Your task to perform on an android device: check google app version Image 0: 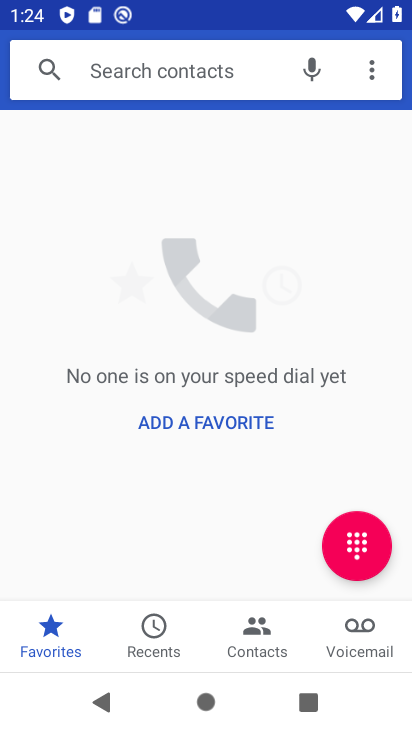
Step 0: press home button
Your task to perform on an android device: check google app version Image 1: 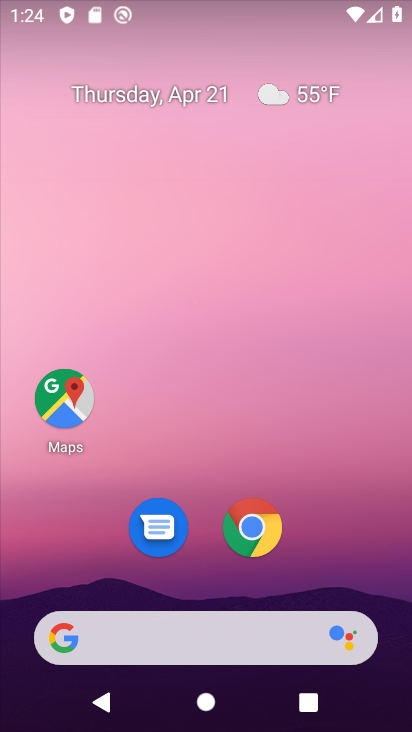
Step 1: drag from (364, 529) to (378, 39)
Your task to perform on an android device: check google app version Image 2: 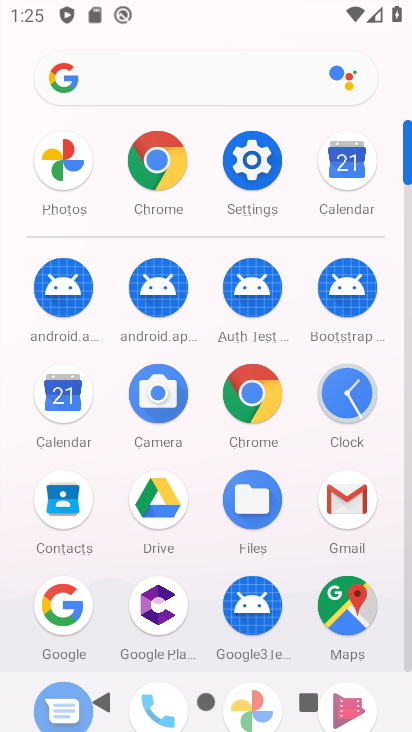
Step 2: drag from (195, 629) to (215, 195)
Your task to perform on an android device: check google app version Image 3: 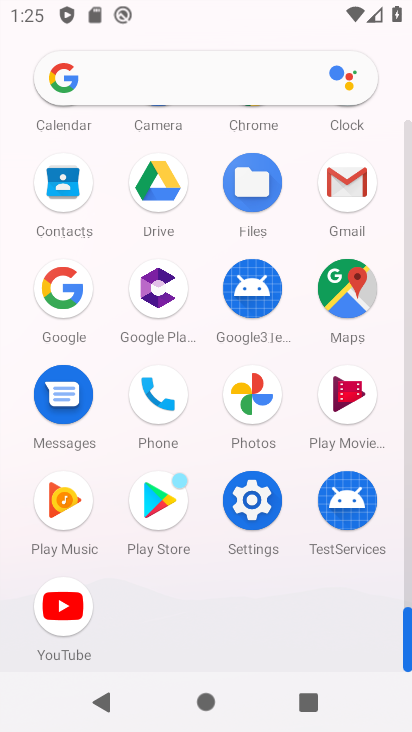
Step 3: click (70, 292)
Your task to perform on an android device: check google app version Image 4: 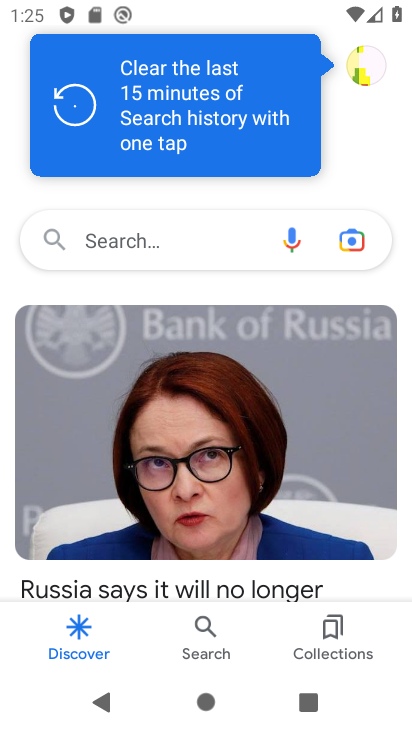
Step 4: click (364, 68)
Your task to perform on an android device: check google app version Image 5: 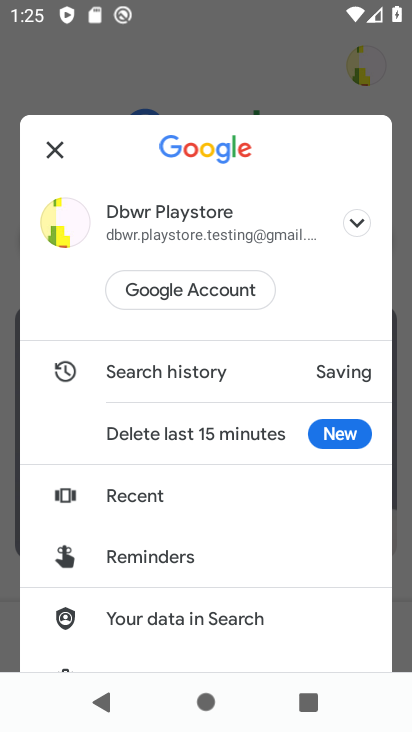
Step 5: drag from (289, 574) to (268, 336)
Your task to perform on an android device: check google app version Image 6: 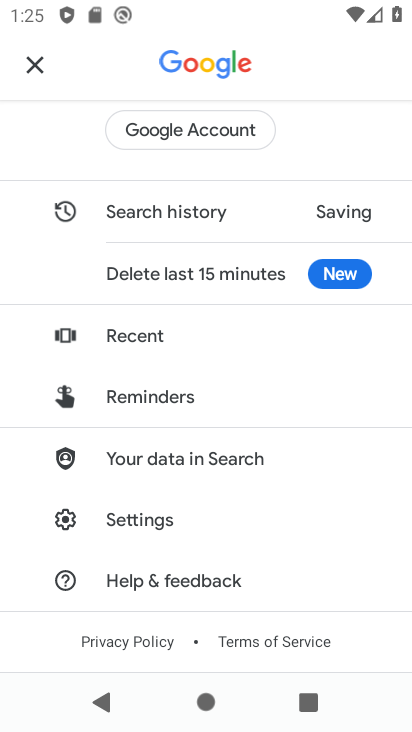
Step 6: click (210, 530)
Your task to perform on an android device: check google app version Image 7: 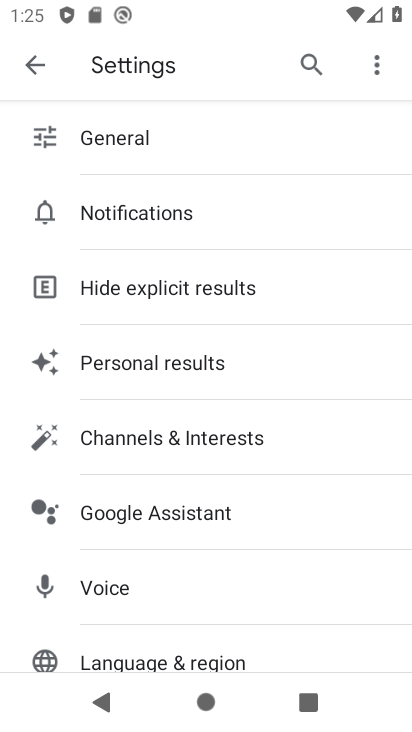
Step 7: drag from (200, 578) to (202, 346)
Your task to perform on an android device: check google app version Image 8: 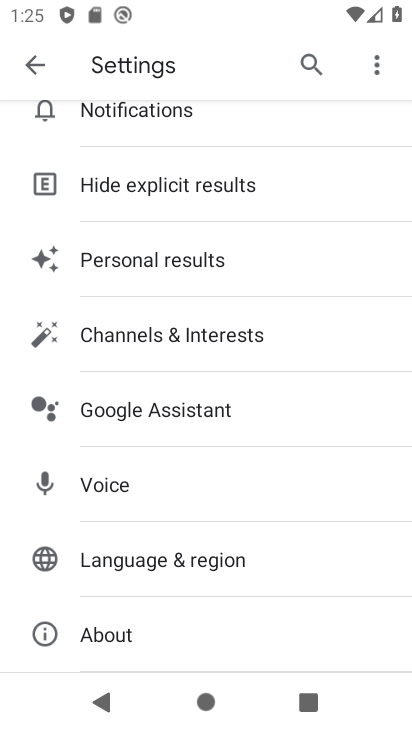
Step 8: click (187, 616)
Your task to perform on an android device: check google app version Image 9: 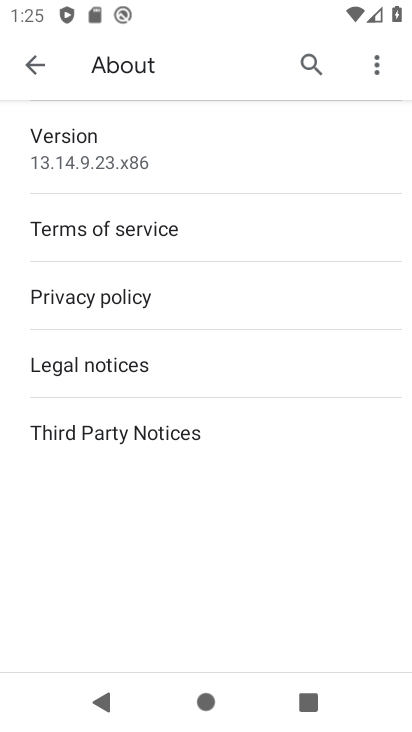
Step 9: task complete